Your task to perform on an android device: Go to wifi settings Image 0: 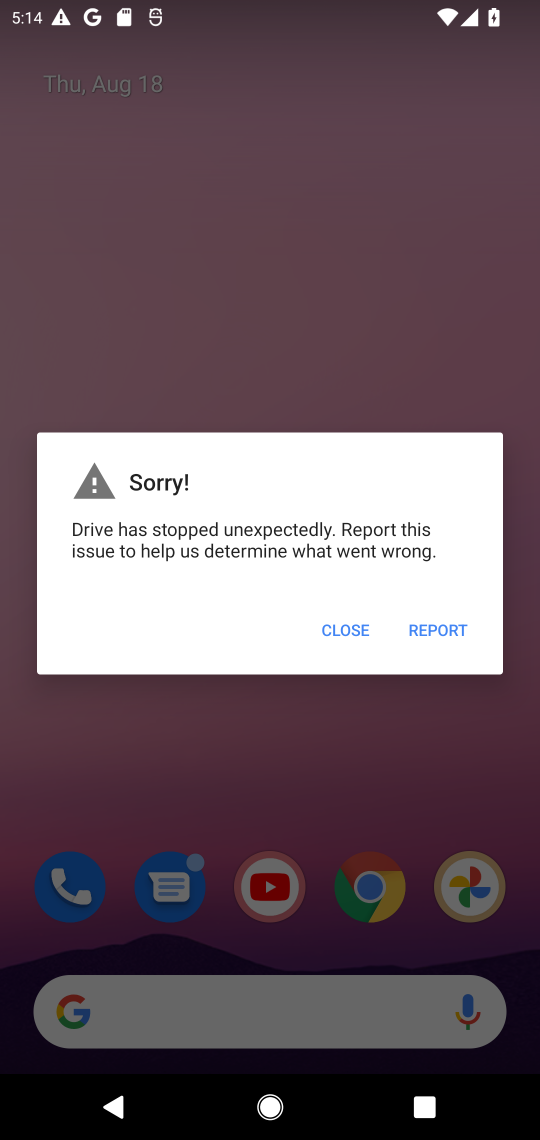
Step 0: task complete